Your task to perform on an android device: What's the news in Colombia? Image 0: 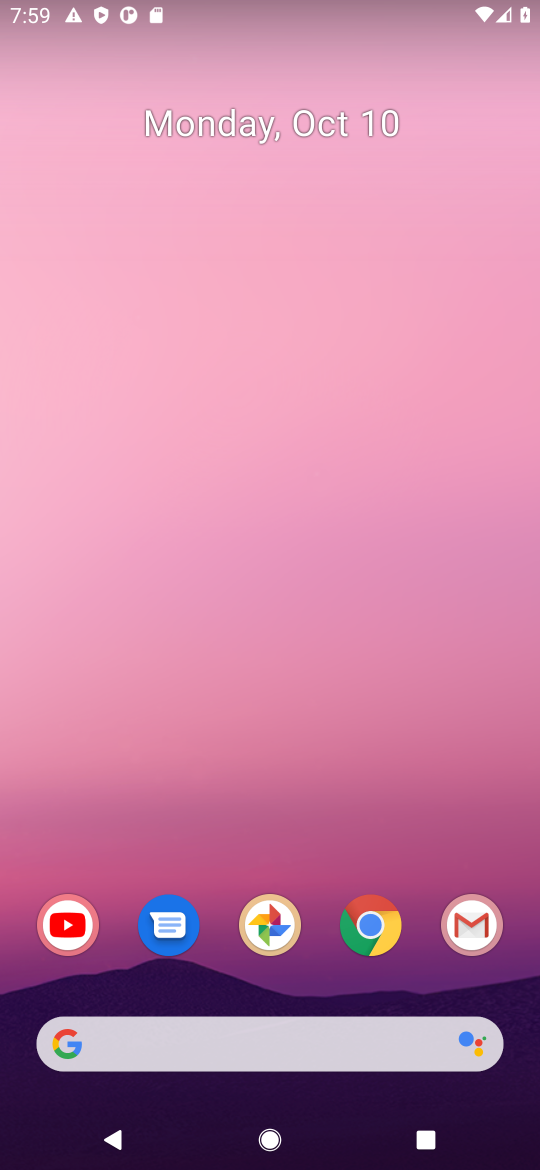
Step 0: drag from (313, 1002) to (305, 146)
Your task to perform on an android device: What's the news in Colombia? Image 1: 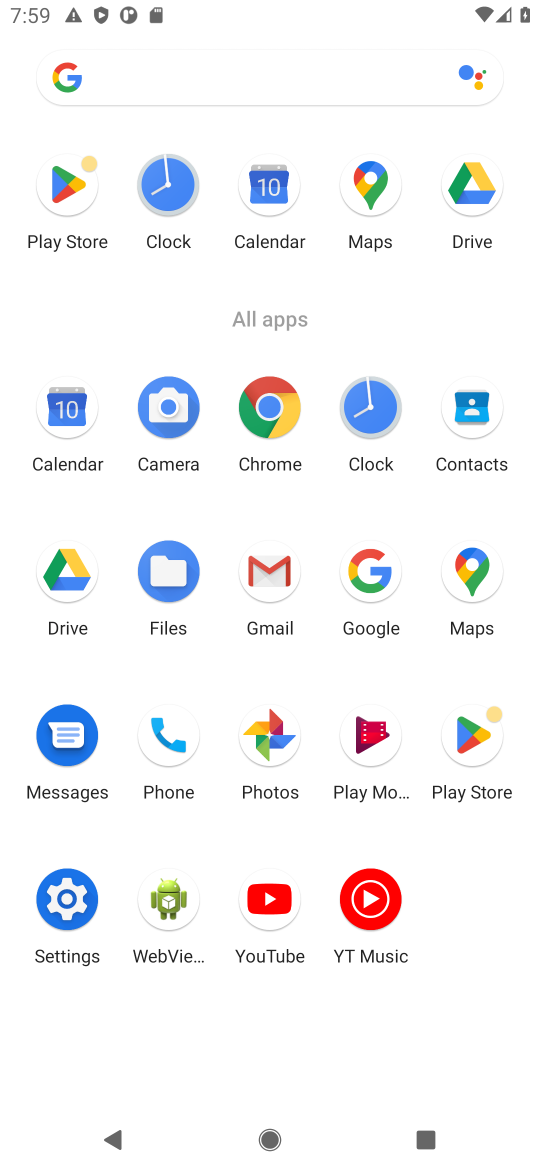
Step 1: click (265, 410)
Your task to perform on an android device: What's the news in Colombia? Image 2: 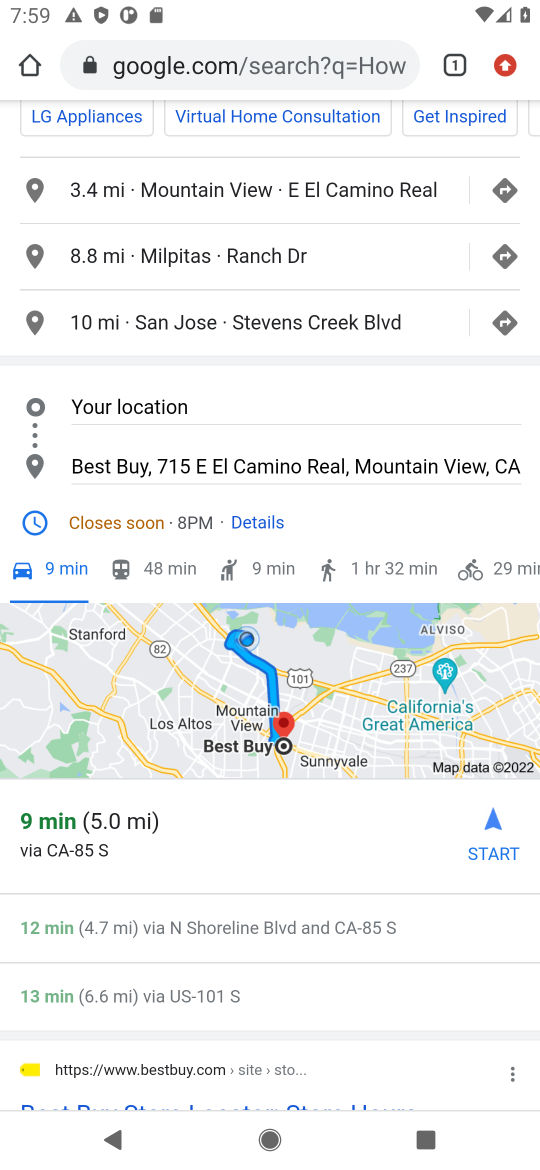
Step 2: click (313, 58)
Your task to perform on an android device: What's the news in Colombia? Image 3: 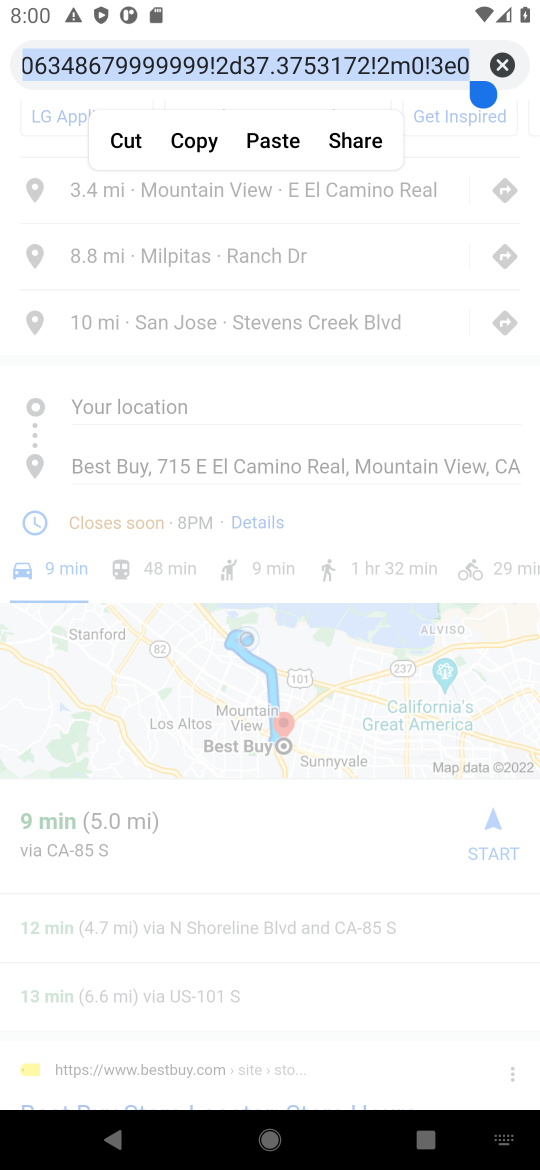
Step 3: type "What's the news in Colombia?"
Your task to perform on an android device: What's the news in Colombia? Image 4: 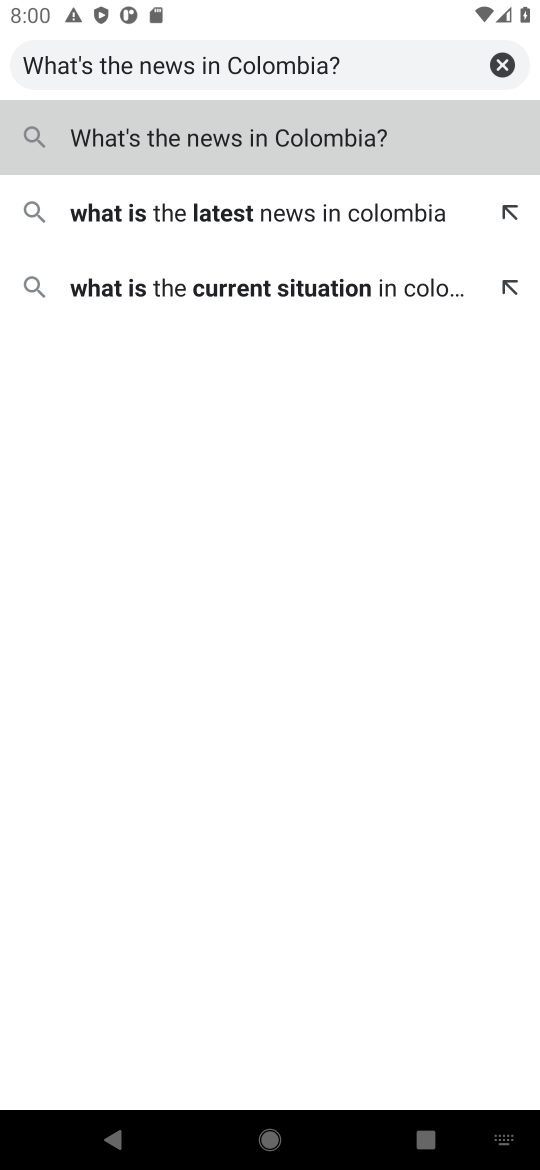
Step 4: type "''"
Your task to perform on an android device: What's the news in Colombia? Image 5: 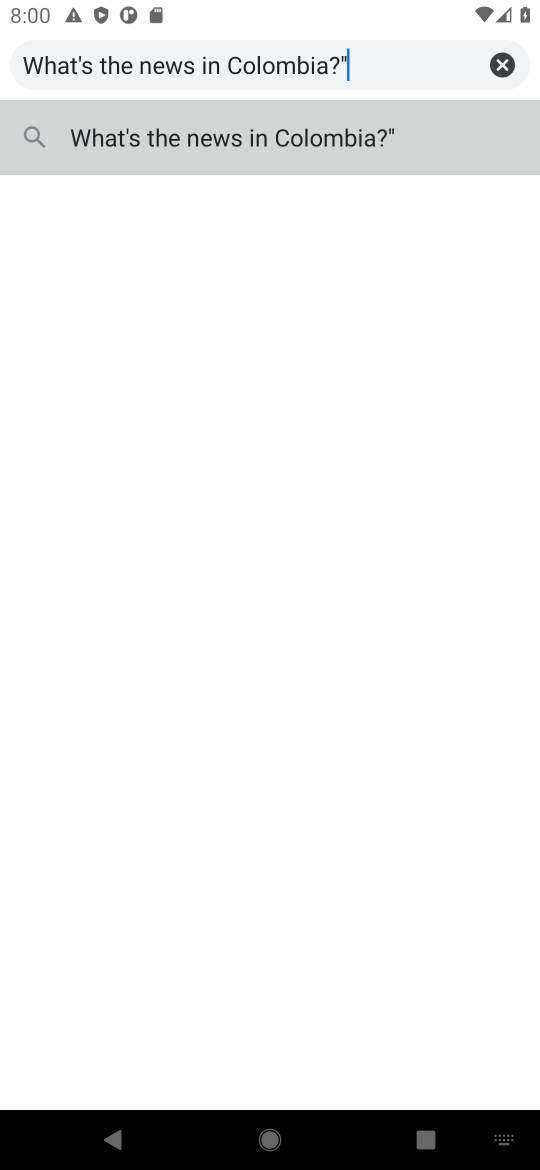
Step 5: press enter
Your task to perform on an android device: What's the news in Colombia? Image 6: 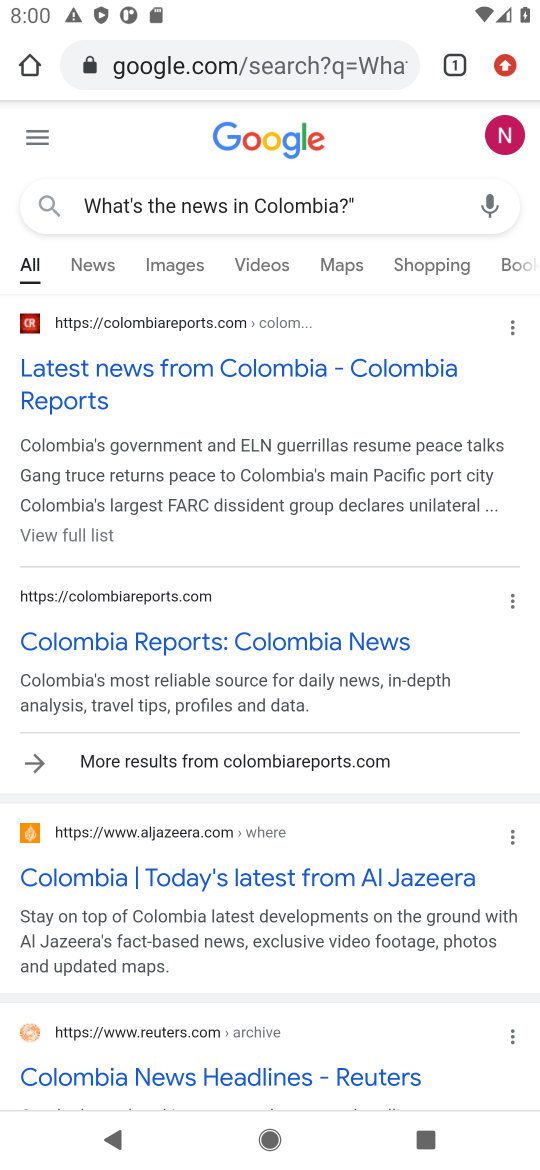
Step 6: click (243, 371)
Your task to perform on an android device: What's the news in Colombia? Image 7: 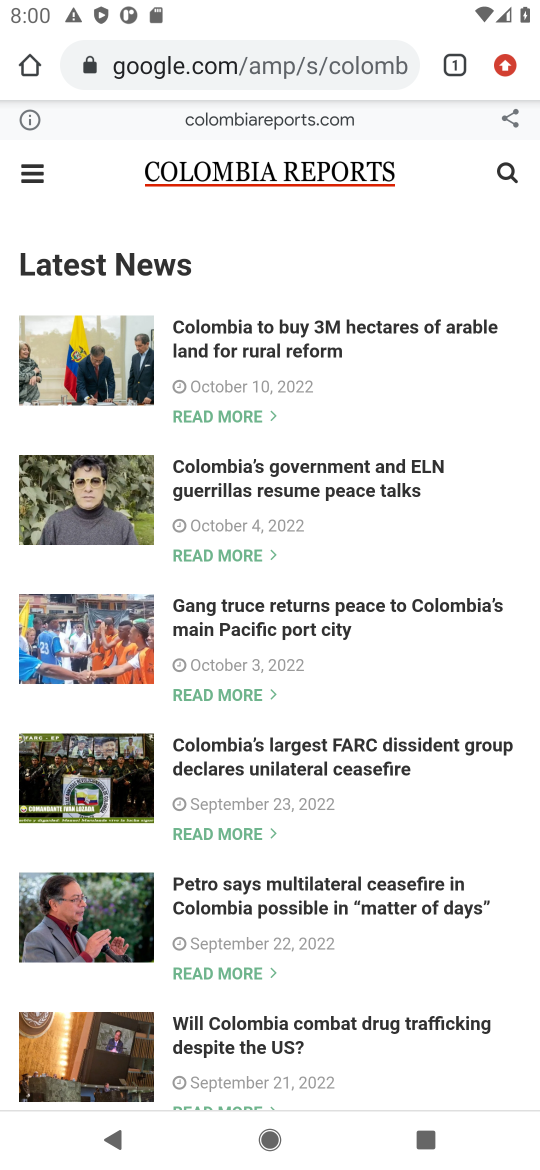
Step 7: task complete